Your task to perform on an android device: open app "Chime – Mobile Banking" (install if not already installed) Image 0: 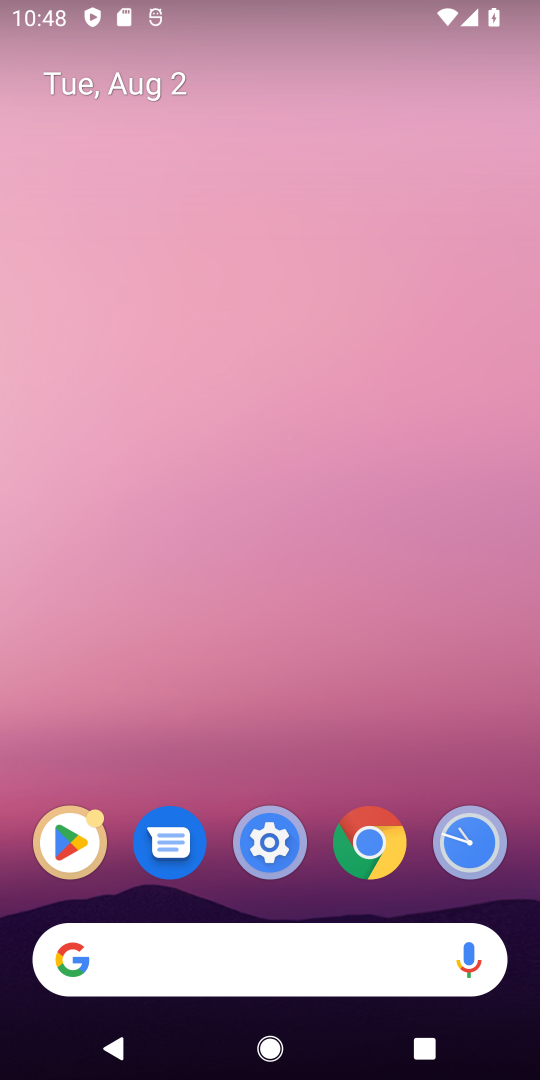
Step 0: drag from (299, 647) to (289, 536)
Your task to perform on an android device: open app "Chime – Mobile Banking" (install if not already installed) Image 1: 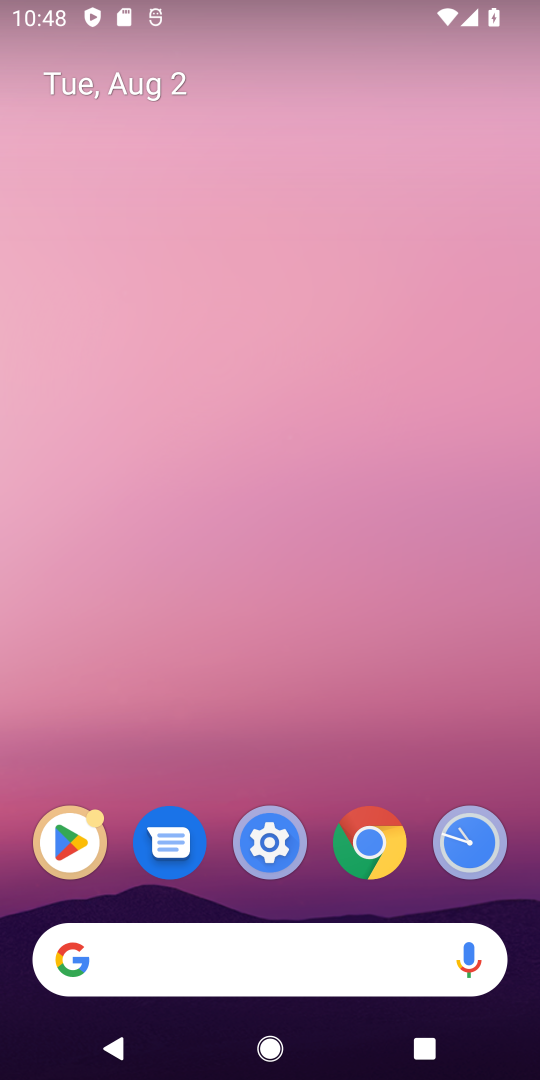
Step 1: drag from (321, 756) to (34, 1078)
Your task to perform on an android device: open app "Chime – Mobile Banking" (install if not already installed) Image 2: 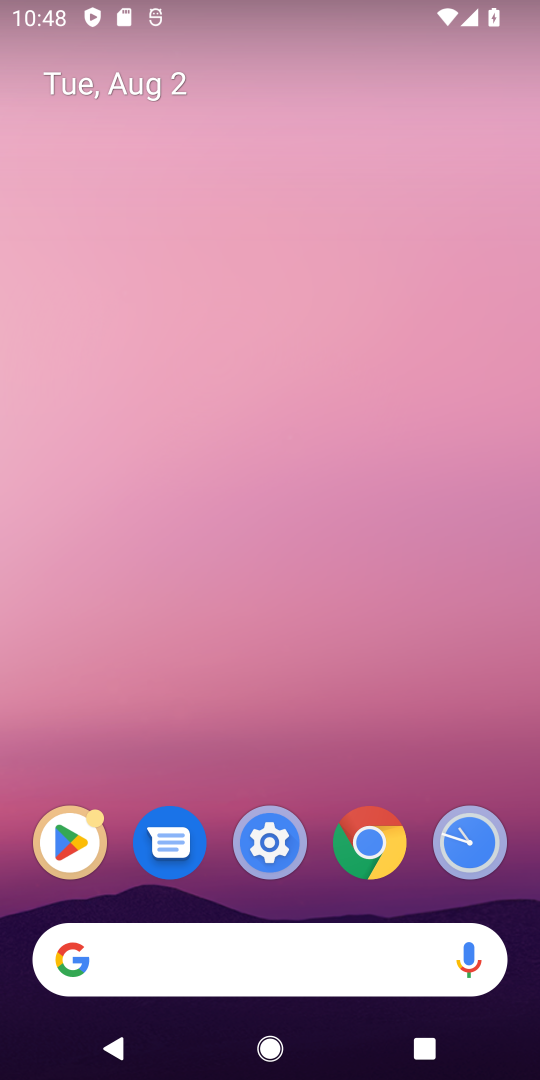
Step 2: click (77, 861)
Your task to perform on an android device: open app "Chime – Mobile Banking" (install if not already installed) Image 3: 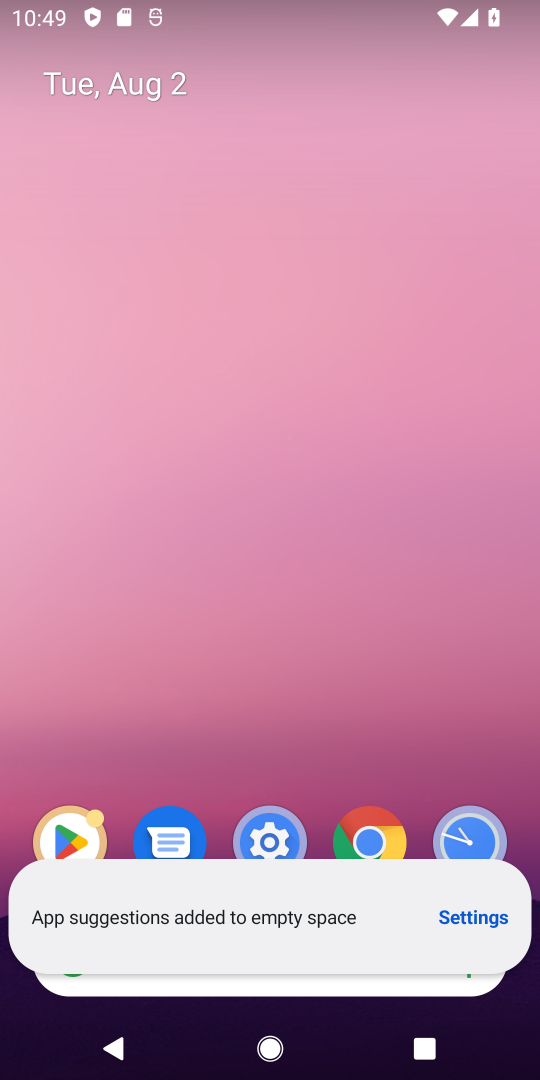
Step 3: click (69, 820)
Your task to perform on an android device: open app "Chime – Mobile Banking" (install if not already installed) Image 4: 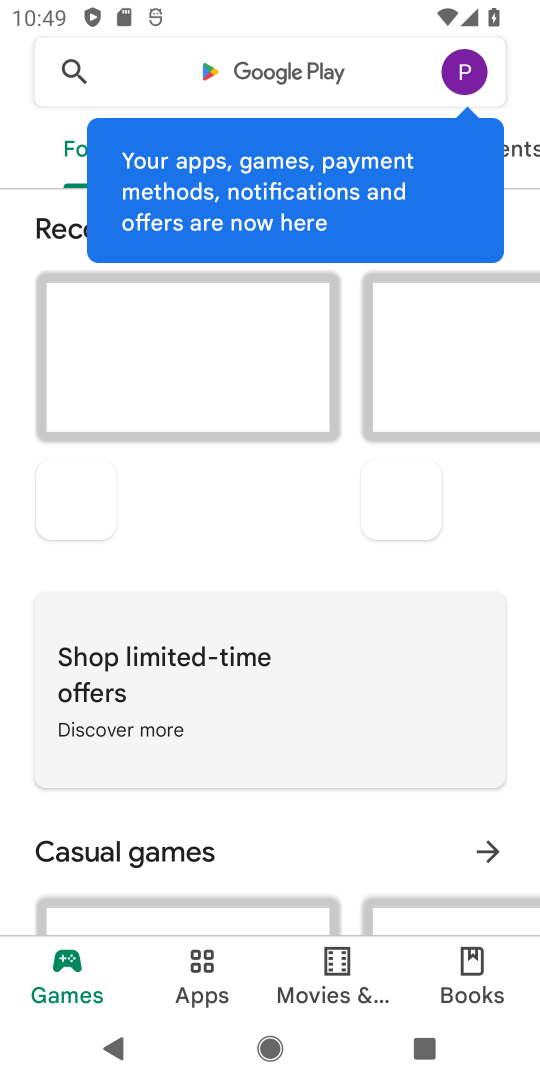
Step 4: click (191, 68)
Your task to perform on an android device: open app "Chime – Mobile Banking" (install if not already installed) Image 5: 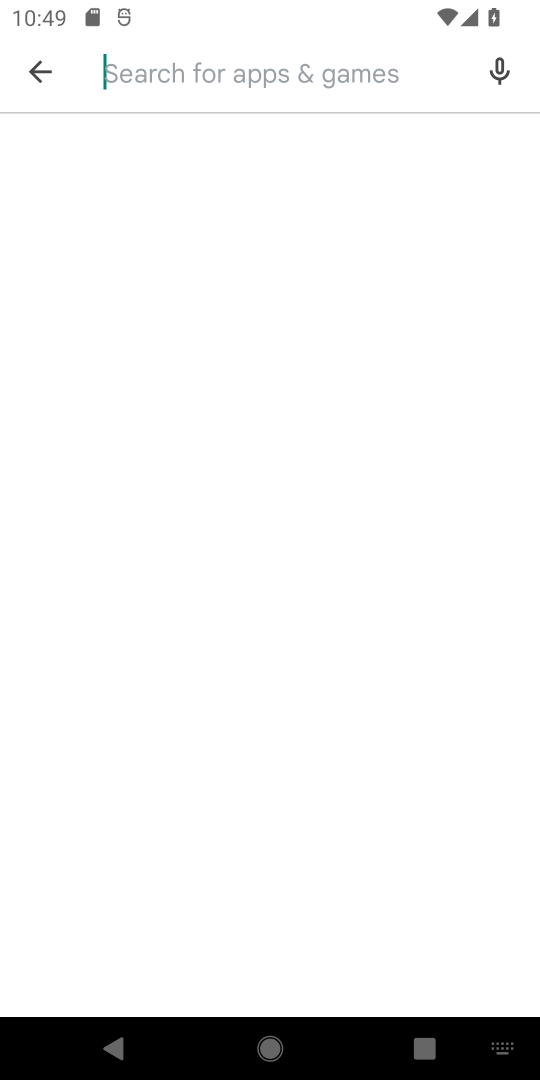
Step 5: type "Chime"
Your task to perform on an android device: open app "Chime – Mobile Banking" (install if not already installed) Image 6: 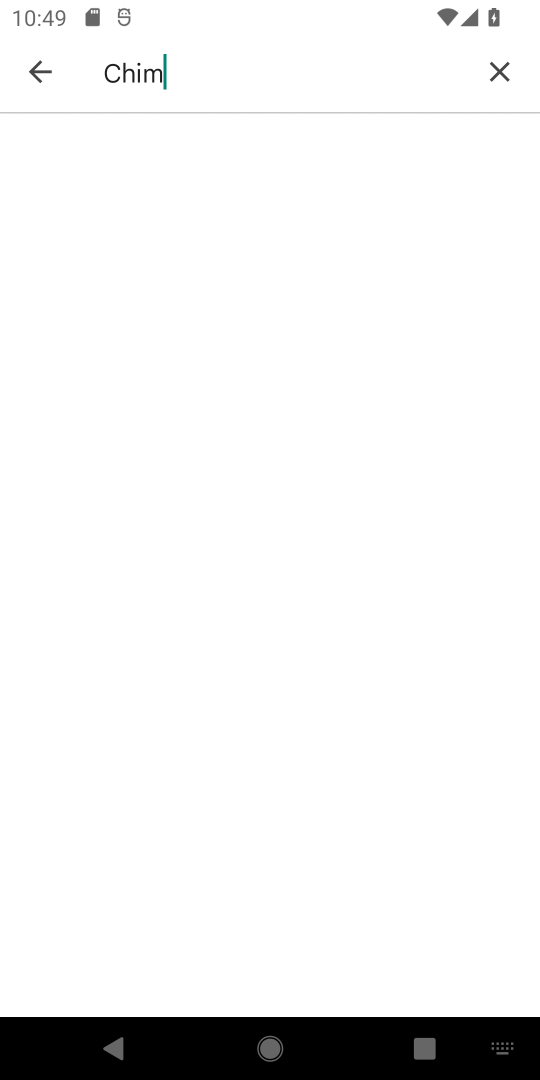
Step 6: type ""
Your task to perform on an android device: open app "Chime – Mobile Banking" (install if not already installed) Image 7: 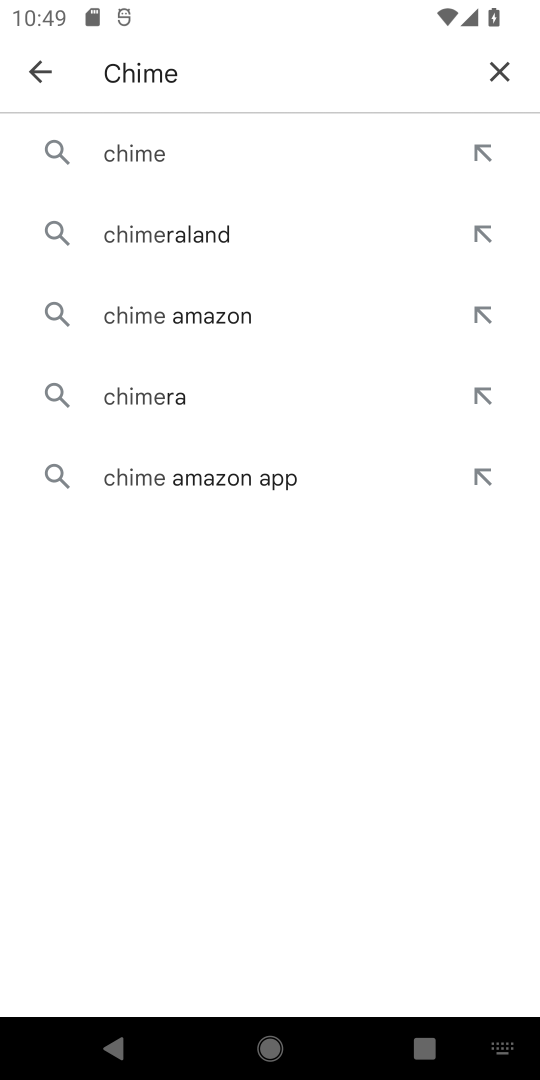
Step 7: click (142, 166)
Your task to perform on an android device: open app "Chime – Mobile Banking" (install if not already installed) Image 8: 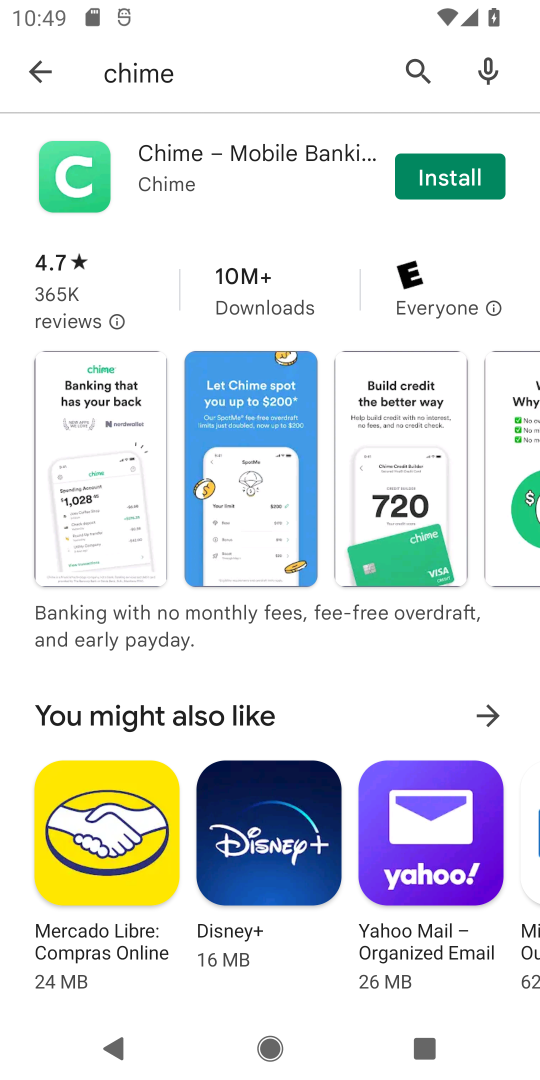
Step 8: click (443, 216)
Your task to perform on an android device: open app "Chime – Mobile Banking" (install if not already installed) Image 9: 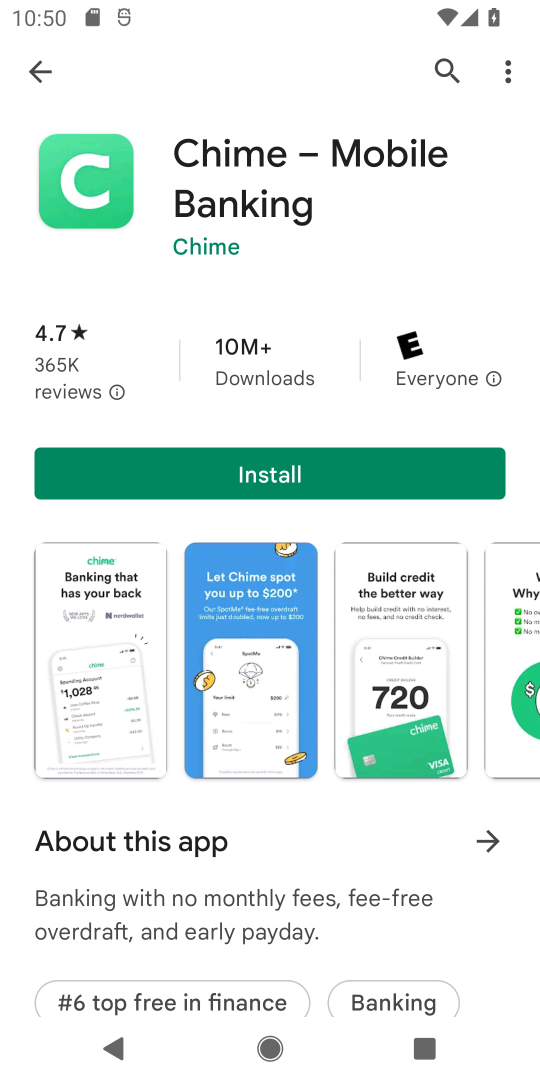
Step 9: click (387, 482)
Your task to perform on an android device: open app "Chime – Mobile Banking" (install if not already installed) Image 10: 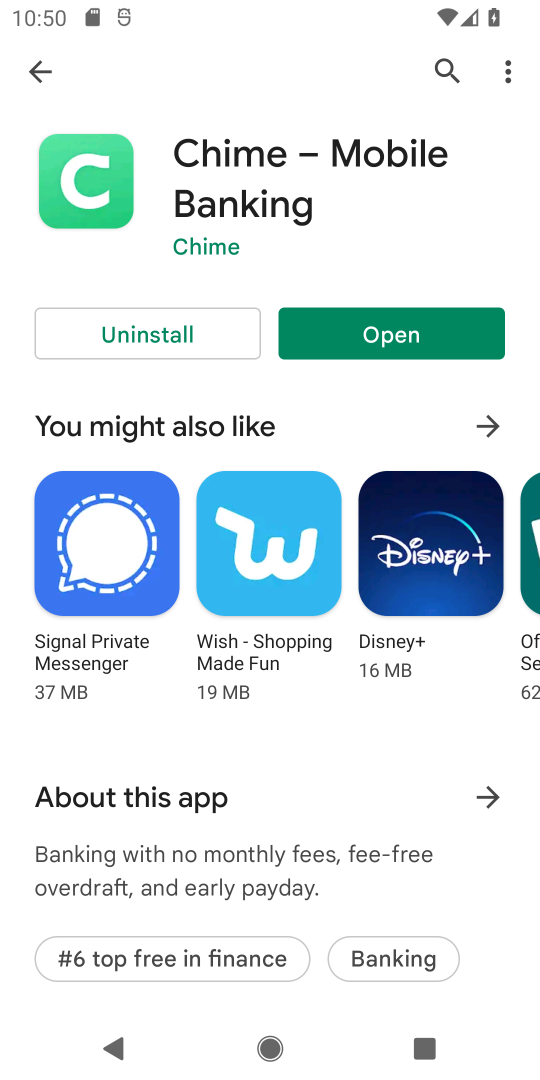
Step 10: click (357, 343)
Your task to perform on an android device: open app "Chime – Mobile Banking" (install if not already installed) Image 11: 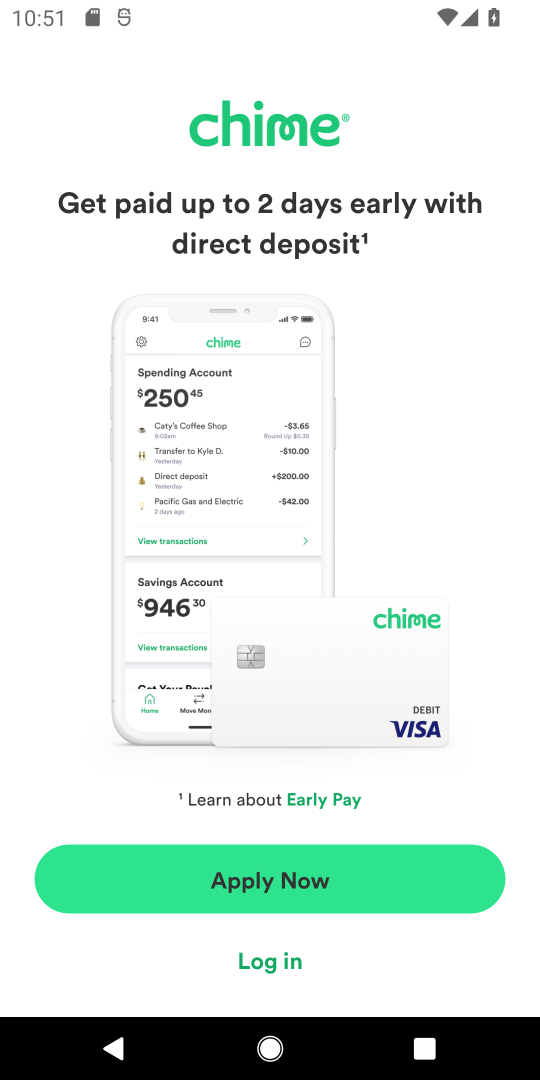
Step 11: task complete